Your task to perform on an android device: allow notifications from all sites in the chrome app Image 0: 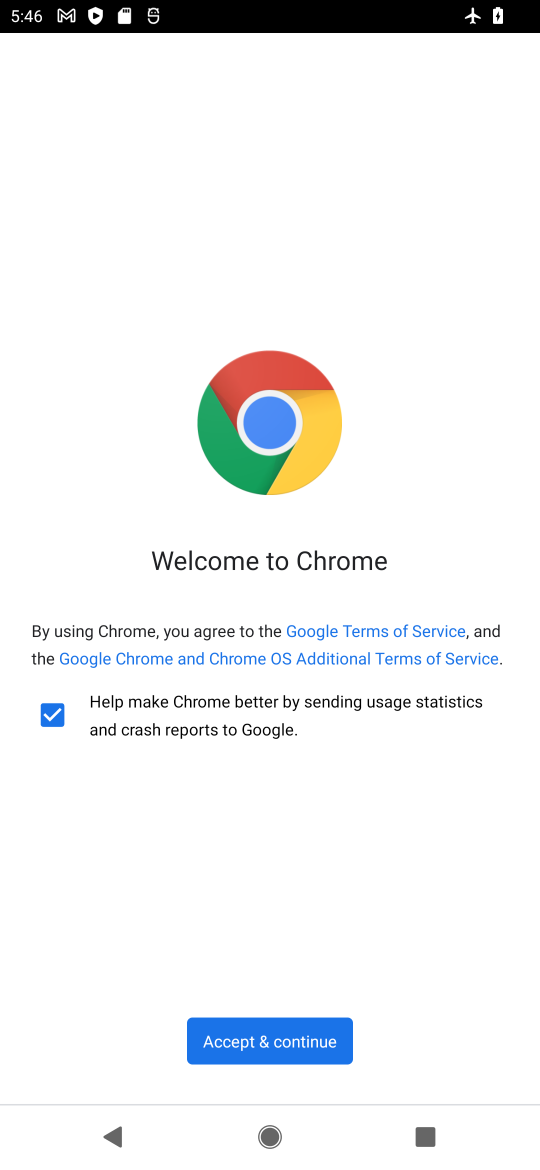
Step 0: click (265, 1039)
Your task to perform on an android device: allow notifications from all sites in the chrome app Image 1: 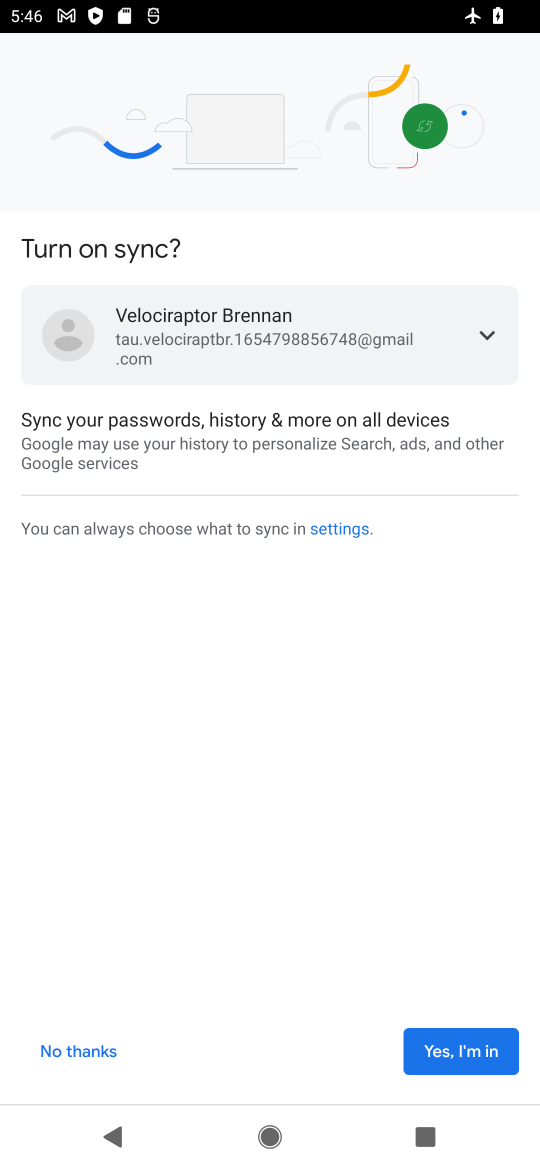
Step 1: click (408, 1045)
Your task to perform on an android device: allow notifications from all sites in the chrome app Image 2: 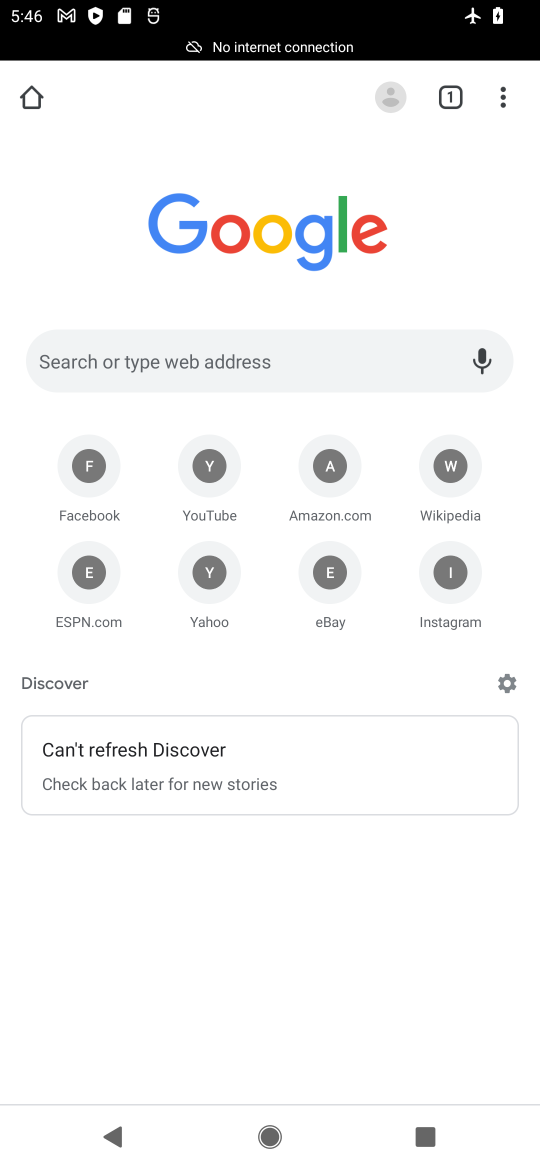
Step 2: click (500, 97)
Your task to perform on an android device: allow notifications from all sites in the chrome app Image 3: 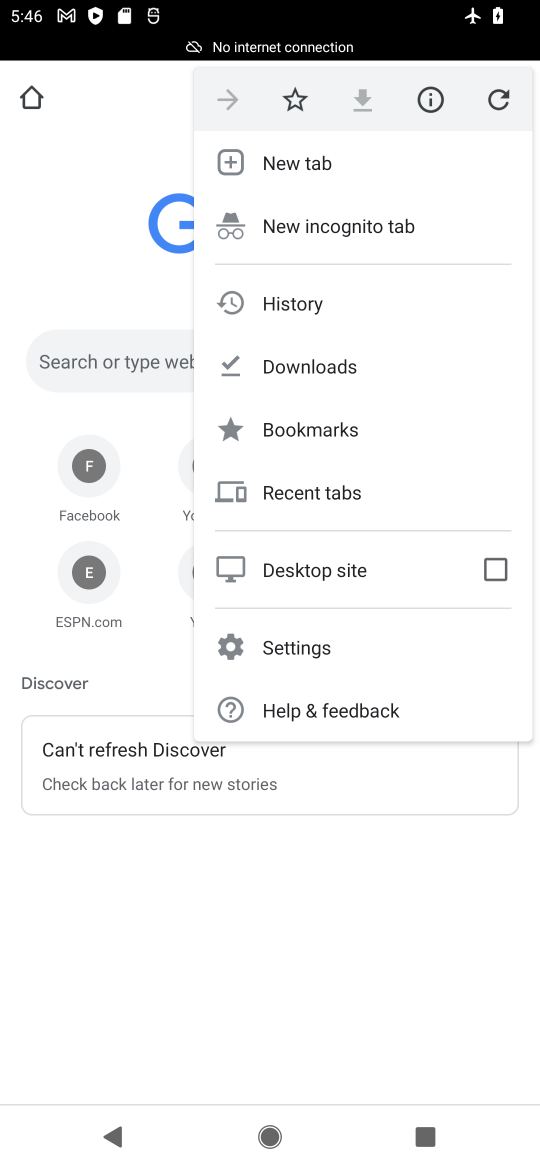
Step 3: click (270, 652)
Your task to perform on an android device: allow notifications from all sites in the chrome app Image 4: 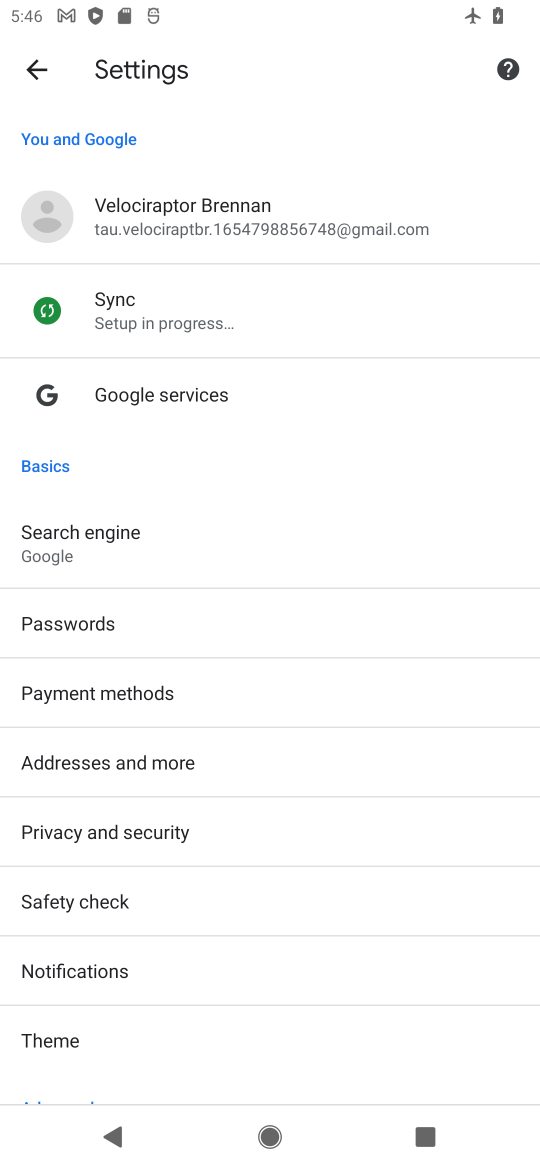
Step 4: click (89, 970)
Your task to perform on an android device: allow notifications from all sites in the chrome app Image 5: 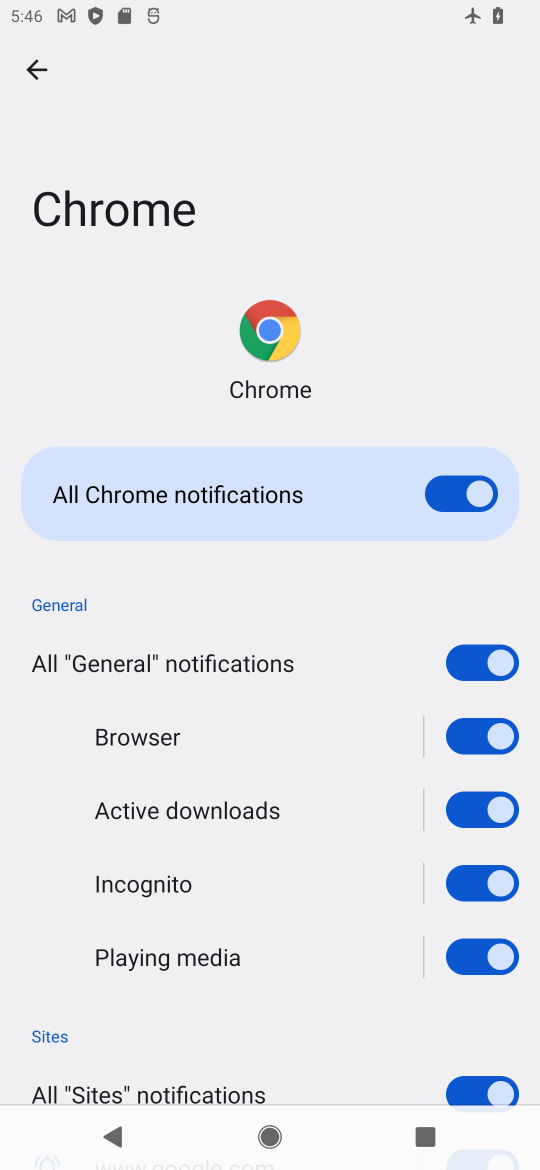
Step 5: task complete